Your task to perform on an android device: Open display settings Image 0: 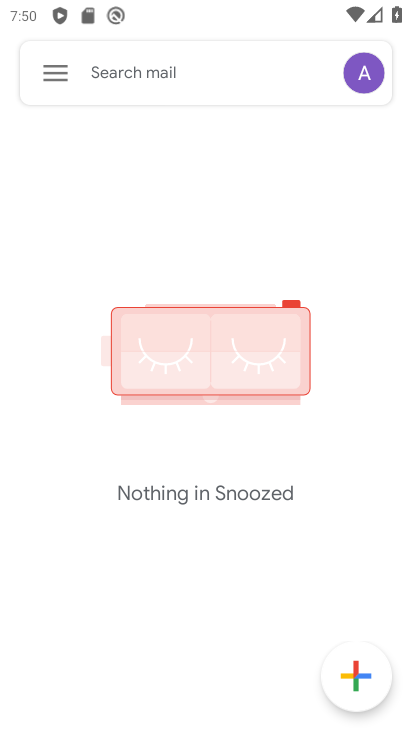
Step 0: press home button
Your task to perform on an android device: Open display settings Image 1: 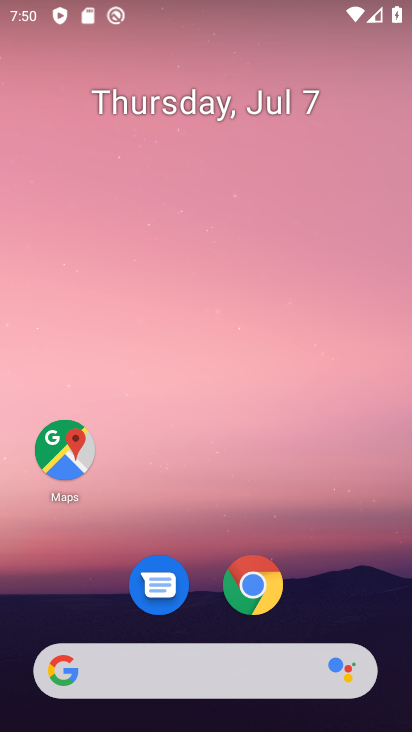
Step 1: drag from (324, 575) to (297, 20)
Your task to perform on an android device: Open display settings Image 2: 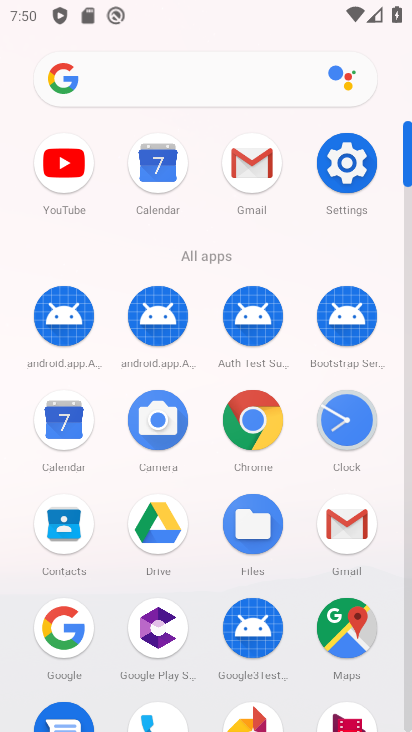
Step 2: click (350, 162)
Your task to perform on an android device: Open display settings Image 3: 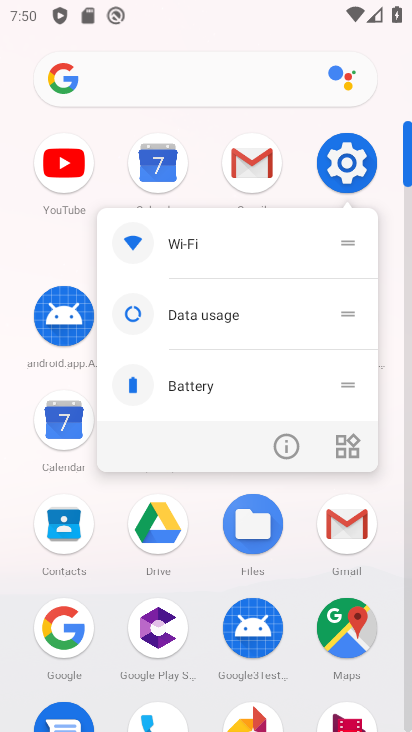
Step 3: click (350, 161)
Your task to perform on an android device: Open display settings Image 4: 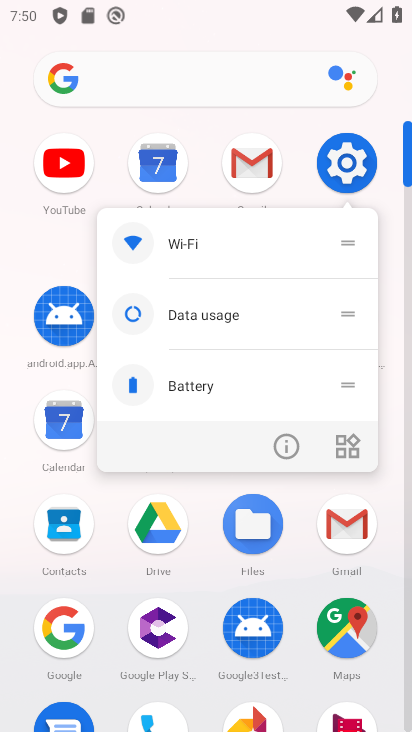
Step 4: click (350, 159)
Your task to perform on an android device: Open display settings Image 5: 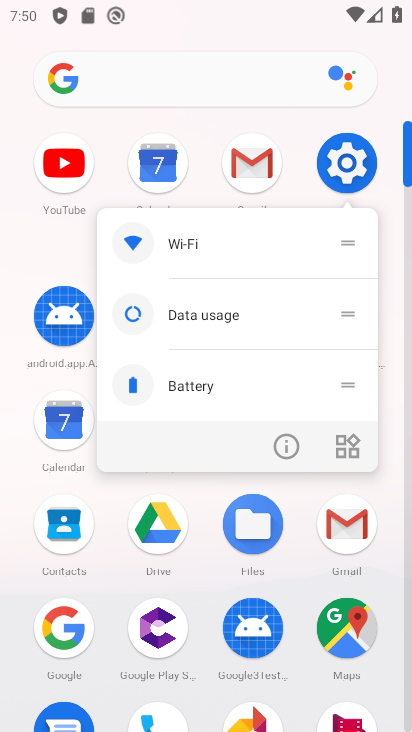
Step 5: click (350, 154)
Your task to perform on an android device: Open display settings Image 6: 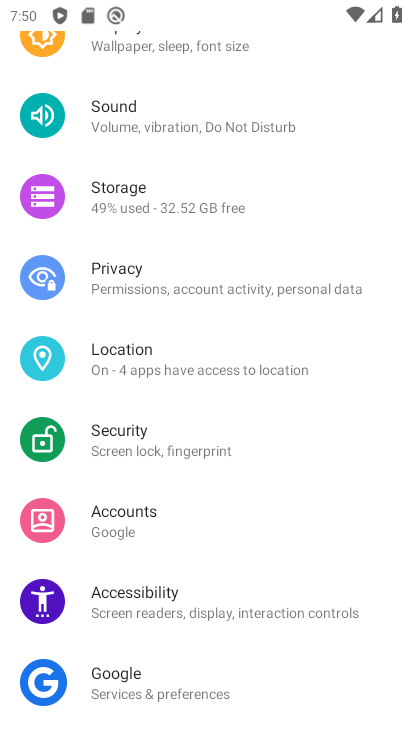
Step 6: drag from (214, 292) to (200, 419)
Your task to perform on an android device: Open display settings Image 7: 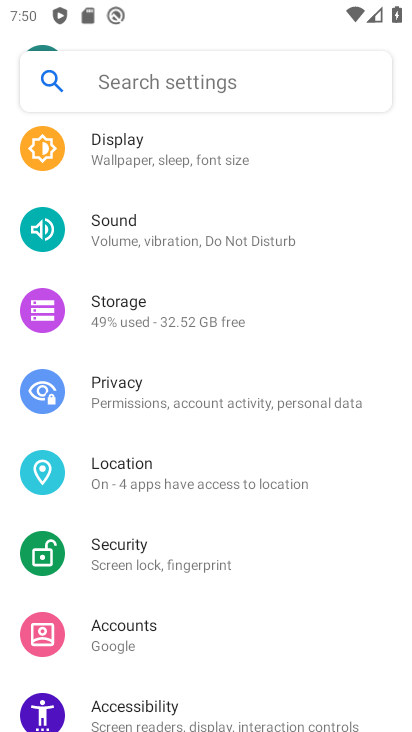
Step 7: click (159, 157)
Your task to perform on an android device: Open display settings Image 8: 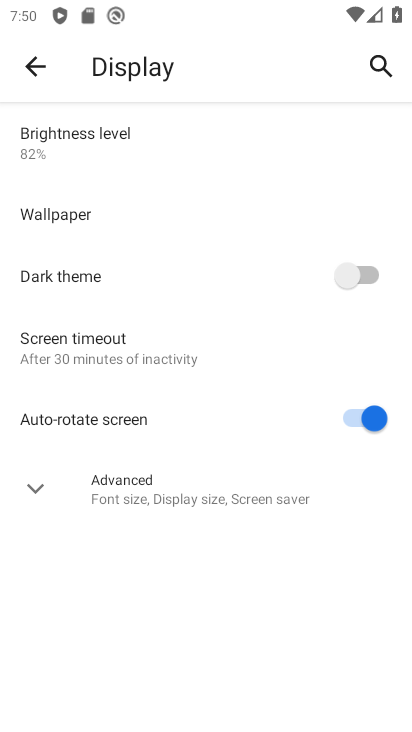
Step 8: click (31, 491)
Your task to perform on an android device: Open display settings Image 9: 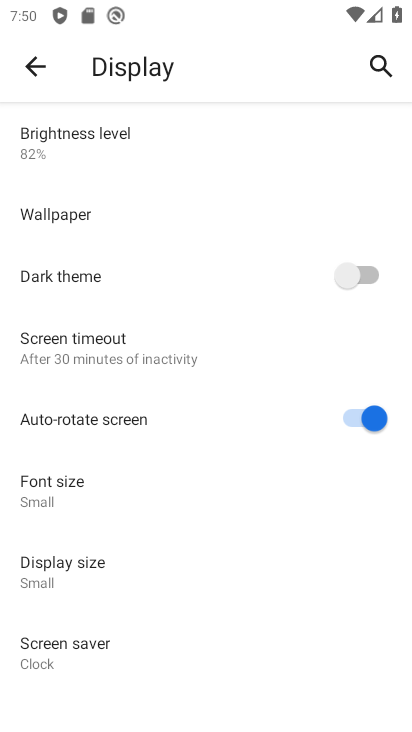
Step 9: task complete